Your task to perform on an android device: change notification settings in the gmail app Image 0: 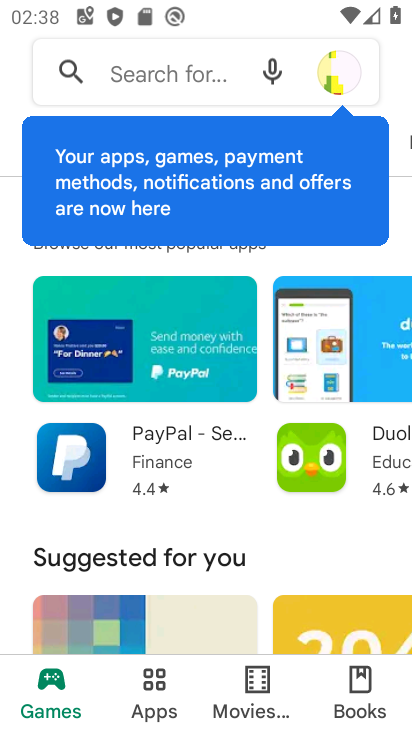
Step 0: press home button
Your task to perform on an android device: change notification settings in the gmail app Image 1: 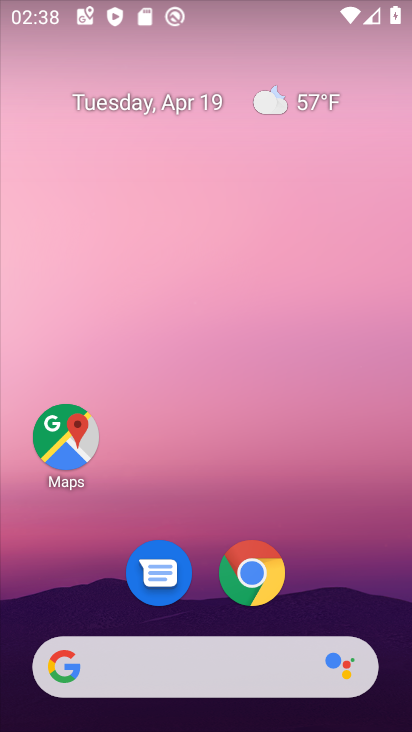
Step 1: drag from (370, 611) to (391, 9)
Your task to perform on an android device: change notification settings in the gmail app Image 2: 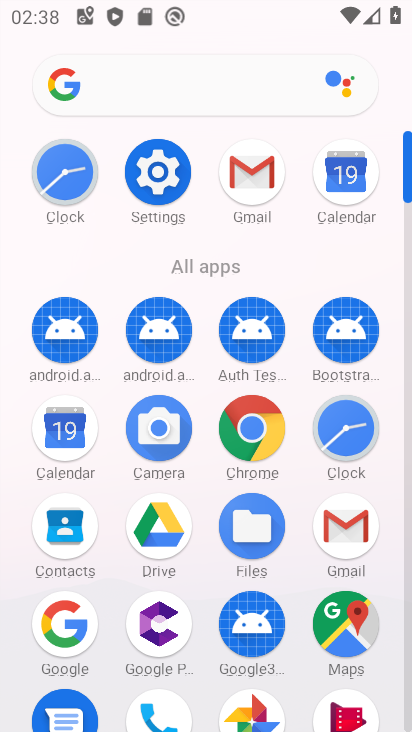
Step 2: click (253, 170)
Your task to perform on an android device: change notification settings in the gmail app Image 3: 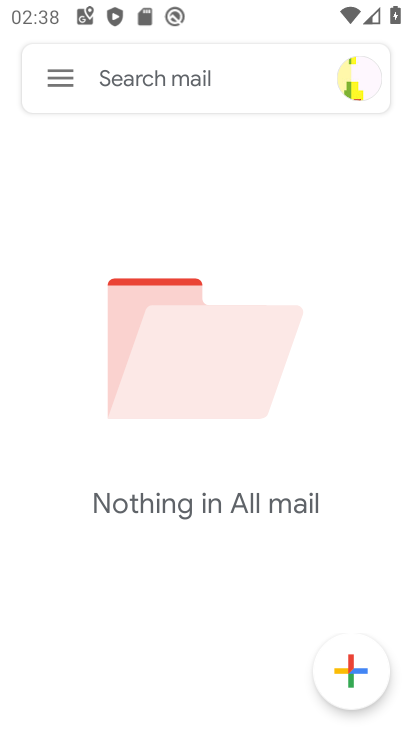
Step 3: click (51, 81)
Your task to perform on an android device: change notification settings in the gmail app Image 4: 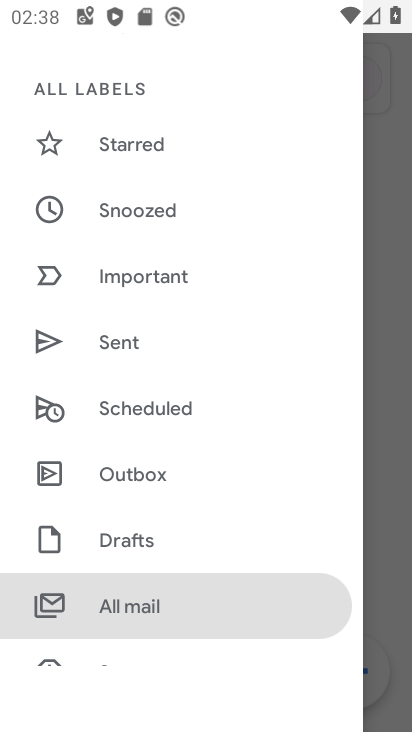
Step 4: drag from (283, 519) to (230, 89)
Your task to perform on an android device: change notification settings in the gmail app Image 5: 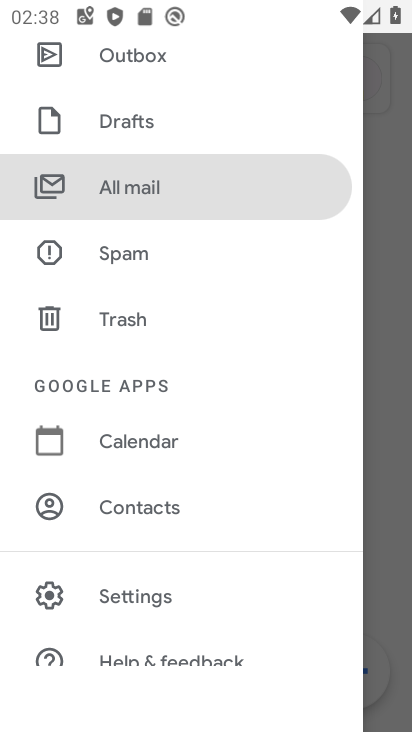
Step 5: drag from (235, 444) to (193, 141)
Your task to perform on an android device: change notification settings in the gmail app Image 6: 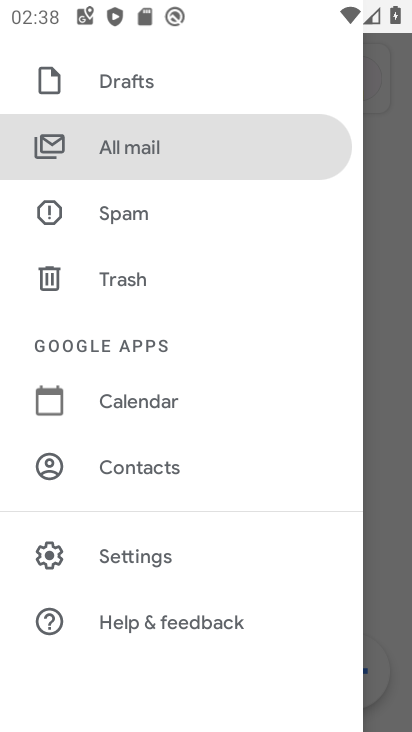
Step 6: click (132, 557)
Your task to perform on an android device: change notification settings in the gmail app Image 7: 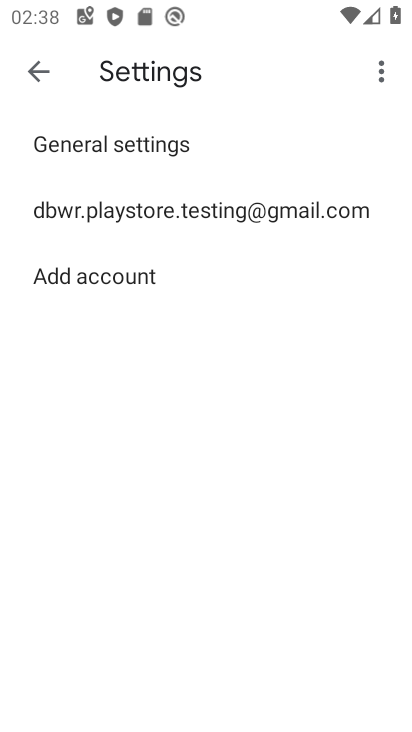
Step 7: click (125, 146)
Your task to perform on an android device: change notification settings in the gmail app Image 8: 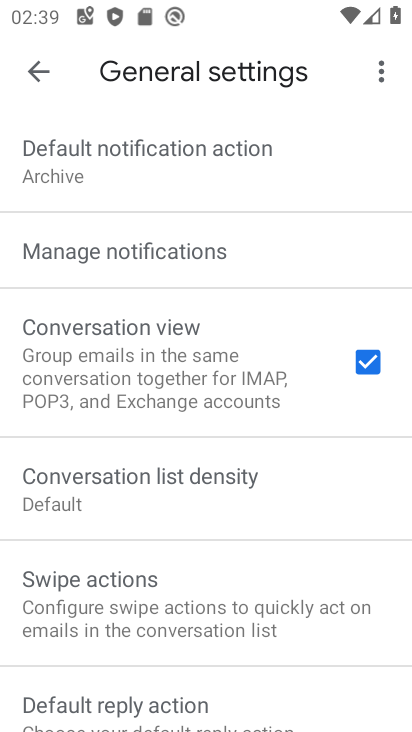
Step 8: click (110, 260)
Your task to perform on an android device: change notification settings in the gmail app Image 9: 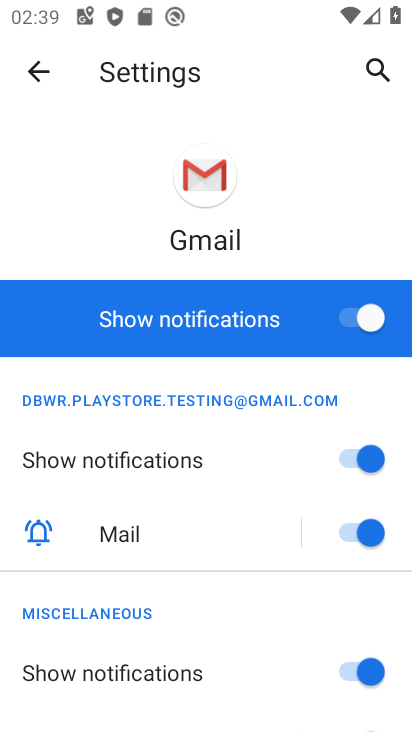
Step 9: click (368, 323)
Your task to perform on an android device: change notification settings in the gmail app Image 10: 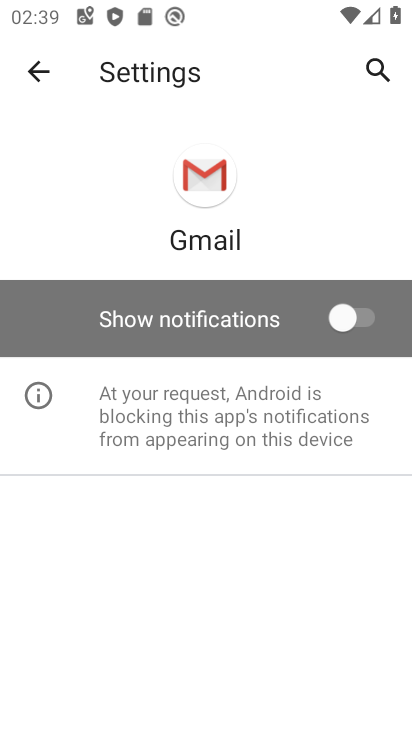
Step 10: task complete